Your task to perform on an android device: Show me popular videos on Youtube Image 0: 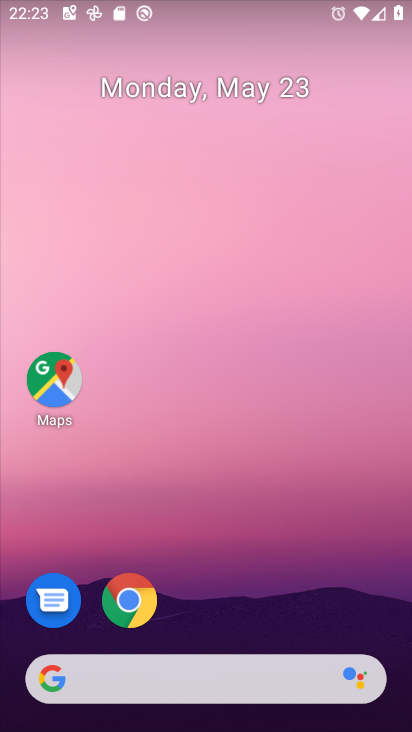
Step 0: drag from (180, 722) to (169, 127)
Your task to perform on an android device: Show me popular videos on Youtube Image 1: 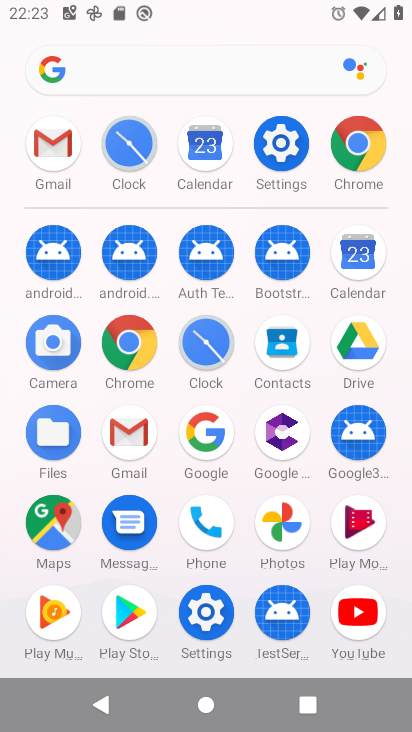
Step 1: click (370, 616)
Your task to perform on an android device: Show me popular videos on Youtube Image 2: 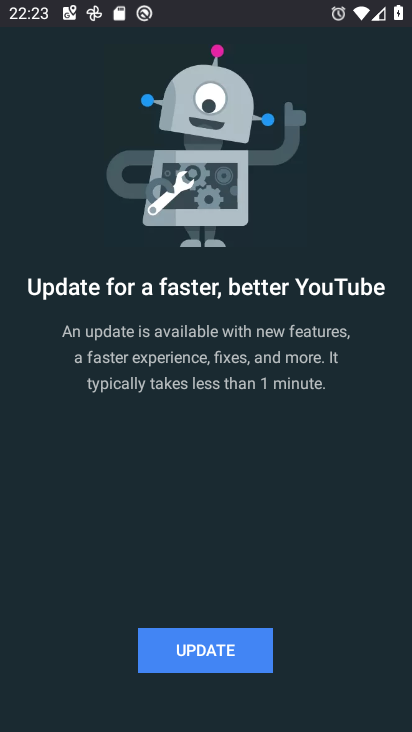
Step 2: click (206, 648)
Your task to perform on an android device: Show me popular videos on Youtube Image 3: 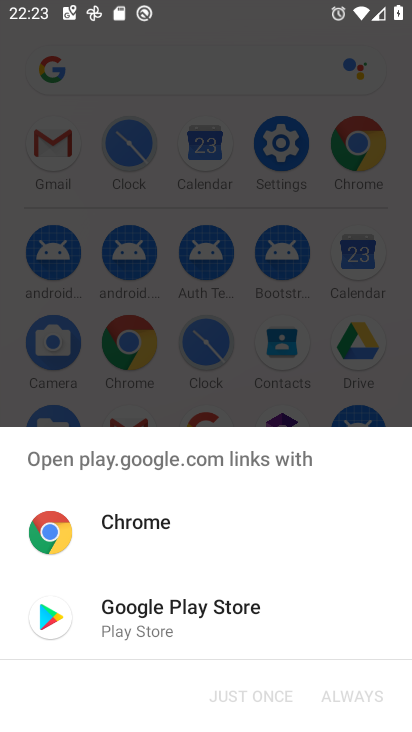
Step 3: click (123, 600)
Your task to perform on an android device: Show me popular videos on Youtube Image 4: 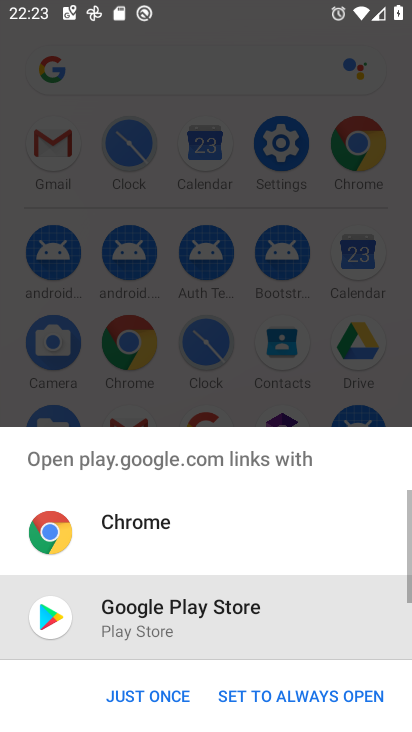
Step 4: click (150, 694)
Your task to perform on an android device: Show me popular videos on Youtube Image 5: 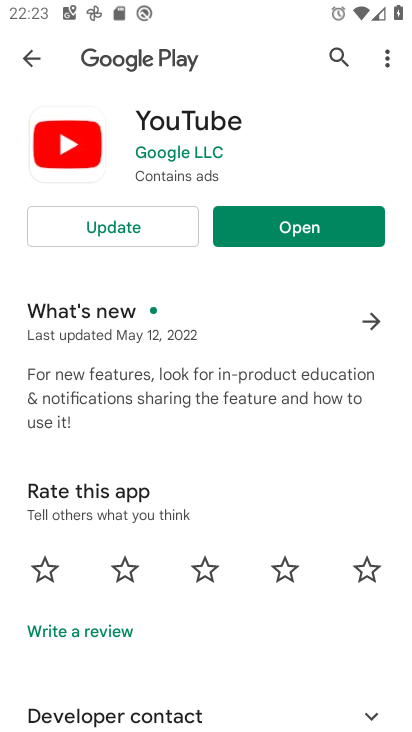
Step 5: click (140, 225)
Your task to perform on an android device: Show me popular videos on Youtube Image 6: 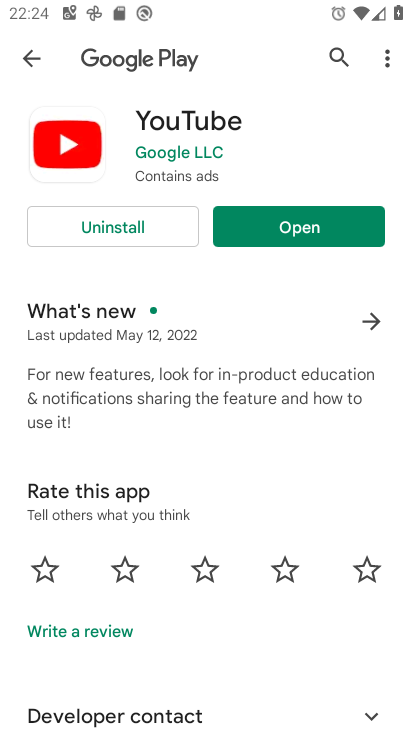
Step 6: click (304, 224)
Your task to perform on an android device: Show me popular videos on Youtube Image 7: 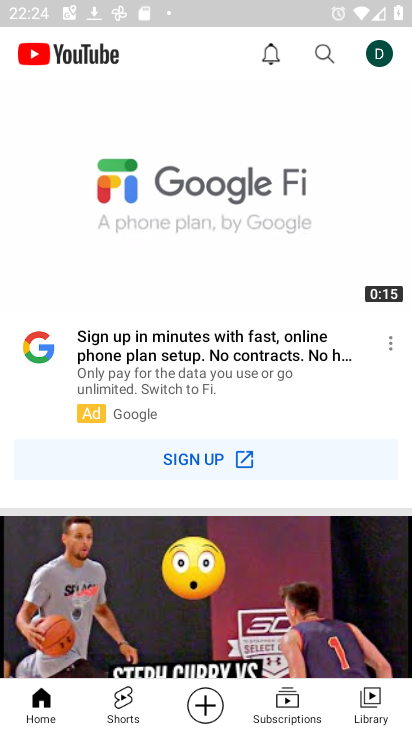
Step 7: click (317, 53)
Your task to perform on an android device: Show me popular videos on Youtube Image 8: 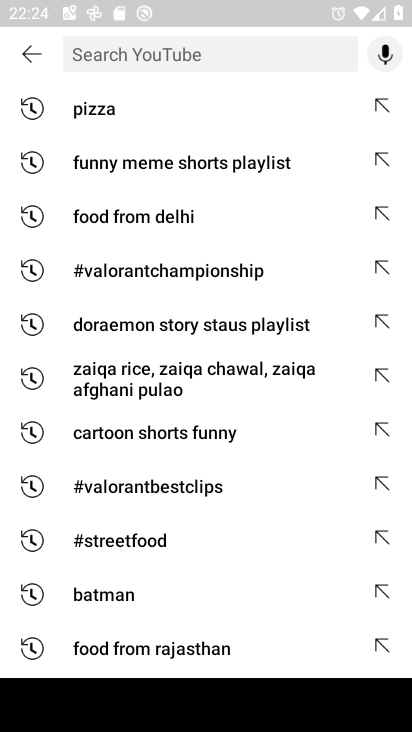
Step 8: type "popular videos on youtube"
Your task to perform on an android device: Show me popular videos on Youtube Image 9: 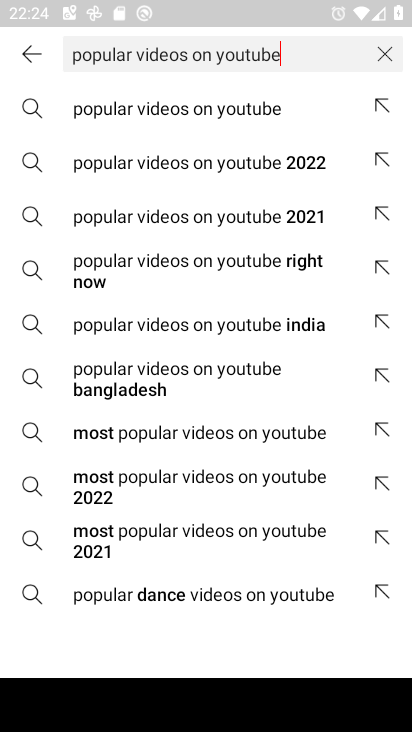
Step 9: click (115, 105)
Your task to perform on an android device: Show me popular videos on Youtube Image 10: 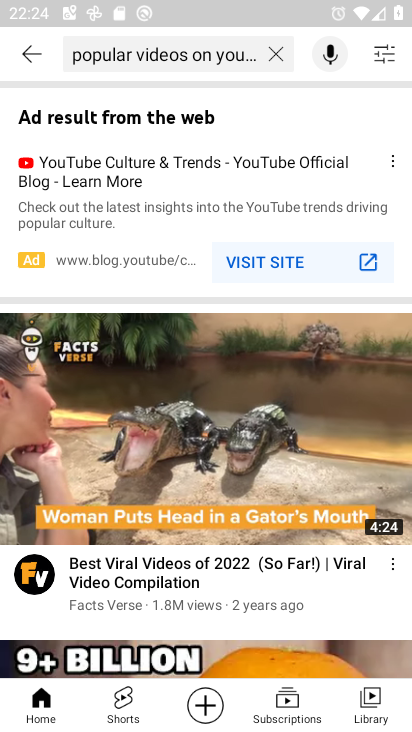
Step 10: task complete